Your task to perform on an android device: turn on the 12-hour format for clock Image 0: 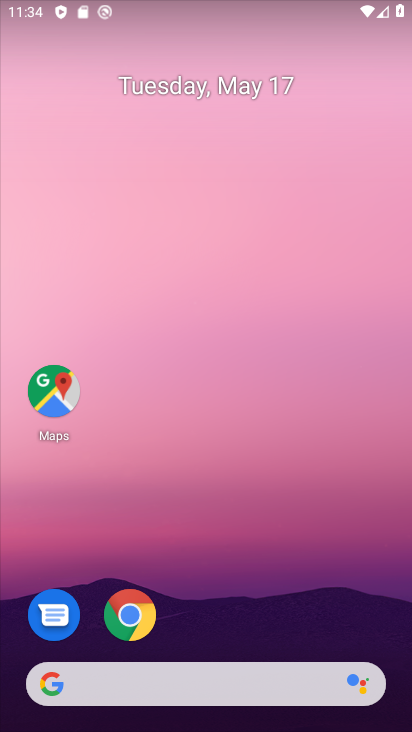
Step 0: drag from (227, 669) to (212, 0)
Your task to perform on an android device: turn on the 12-hour format for clock Image 1: 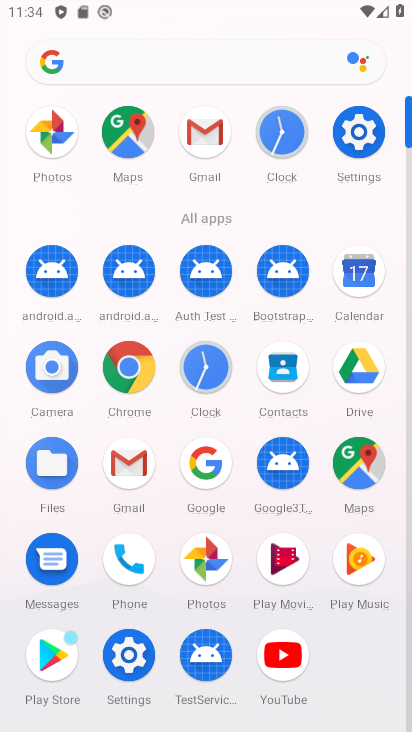
Step 1: click (118, 650)
Your task to perform on an android device: turn on the 12-hour format for clock Image 2: 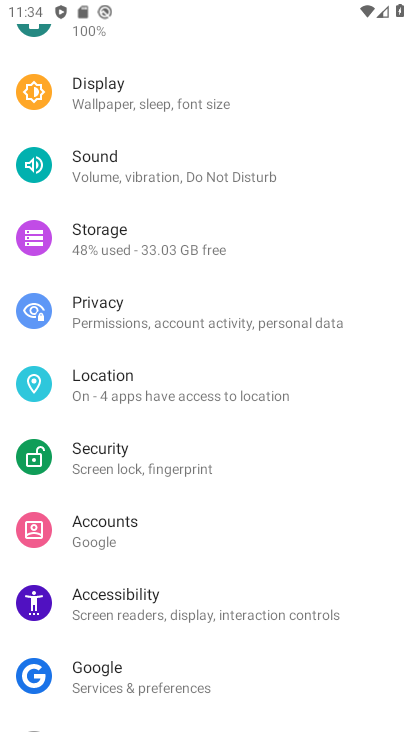
Step 2: press home button
Your task to perform on an android device: turn on the 12-hour format for clock Image 3: 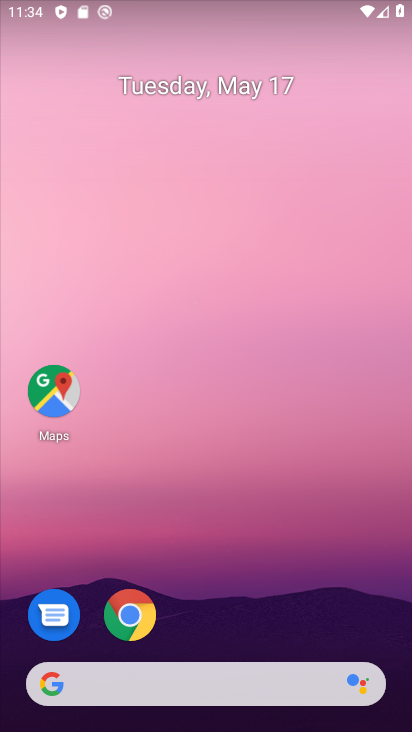
Step 3: drag from (236, 655) to (172, 0)
Your task to perform on an android device: turn on the 12-hour format for clock Image 4: 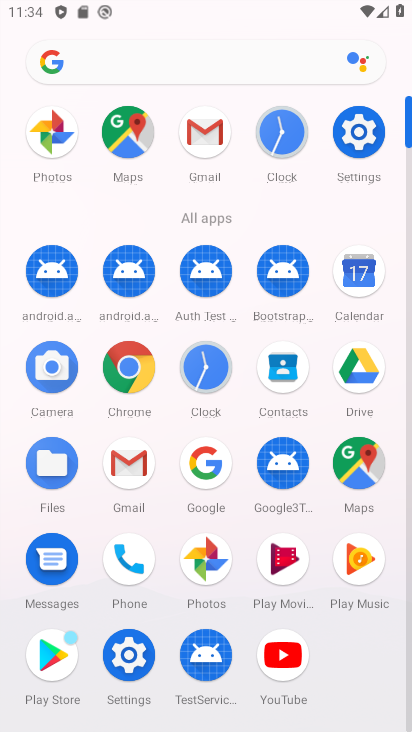
Step 4: click (197, 365)
Your task to perform on an android device: turn on the 12-hour format for clock Image 5: 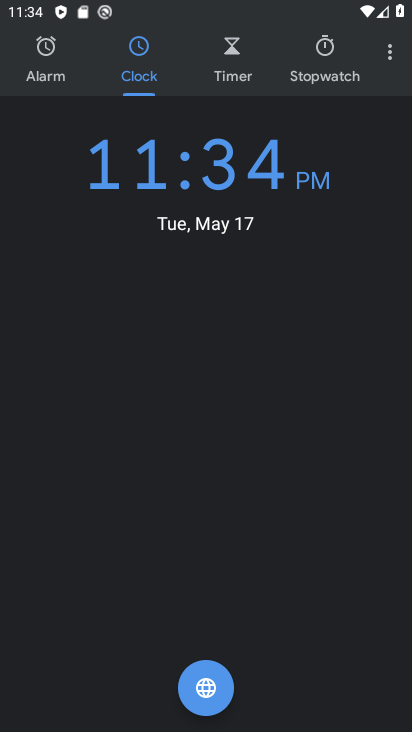
Step 5: click (391, 56)
Your task to perform on an android device: turn on the 12-hour format for clock Image 6: 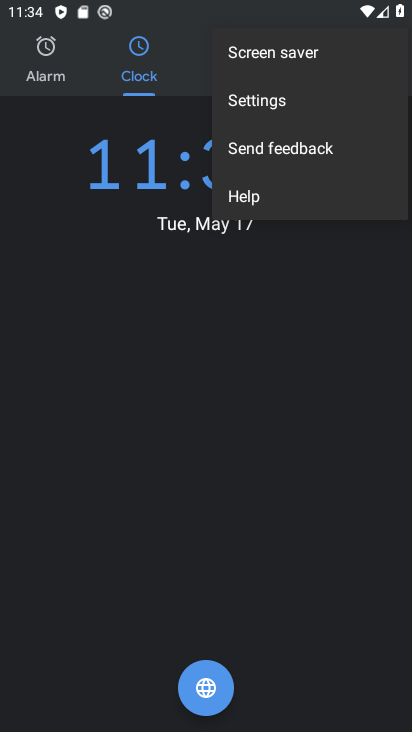
Step 6: click (266, 110)
Your task to perform on an android device: turn on the 12-hour format for clock Image 7: 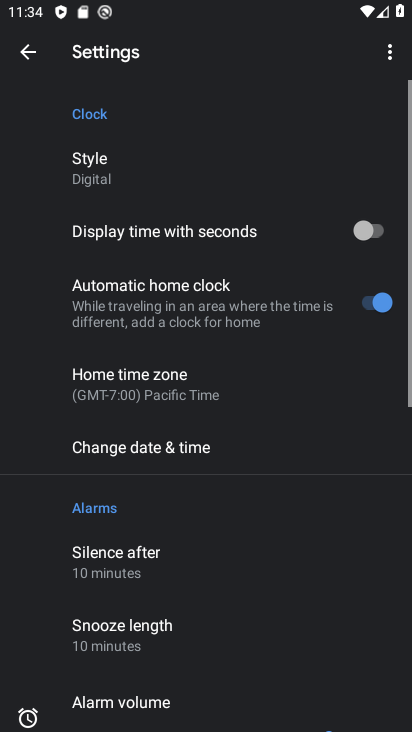
Step 7: drag from (177, 583) to (112, 147)
Your task to perform on an android device: turn on the 12-hour format for clock Image 8: 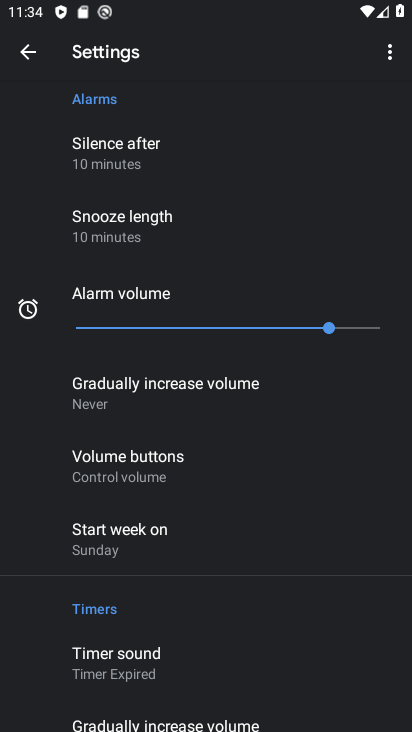
Step 8: drag from (162, 569) to (156, 671)
Your task to perform on an android device: turn on the 12-hour format for clock Image 9: 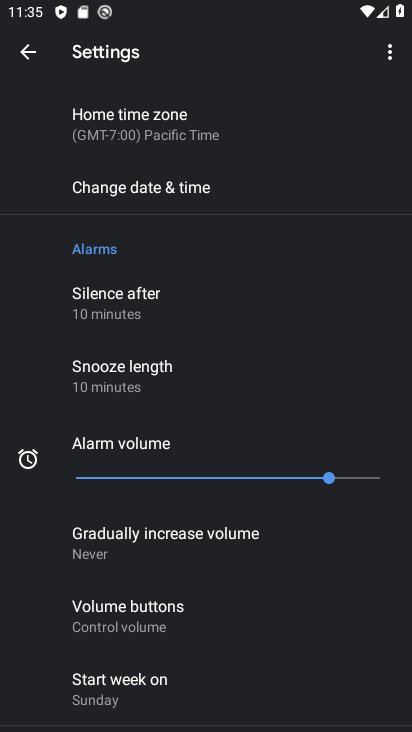
Step 9: click (141, 202)
Your task to perform on an android device: turn on the 12-hour format for clock Image 10: 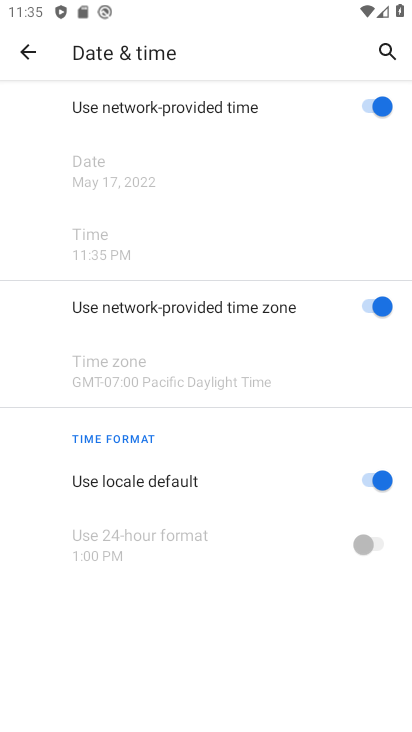
Step 10: task complete